Your task to perform on an android device: What's the weather going to be tomorrow? Image 0: 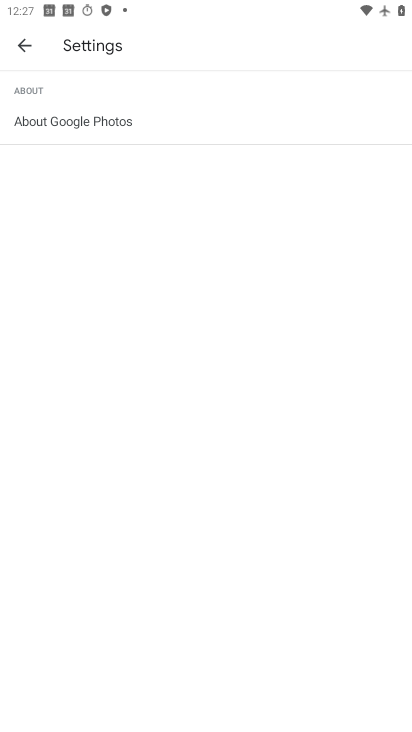
Step 0: press home button
Your task to perform on an android device: What's the weather going to be tomorrow? Image 1: 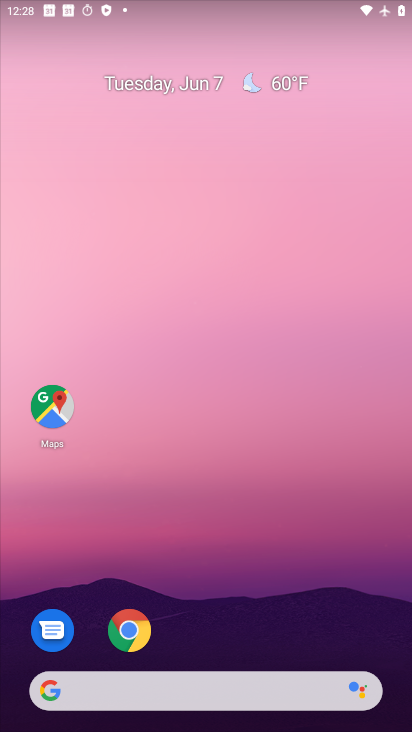
Step 1: drag from (370, 601) to (217, 51)
Your task to perform on an android device: What's the weather going to be tomorrow? Image 2: 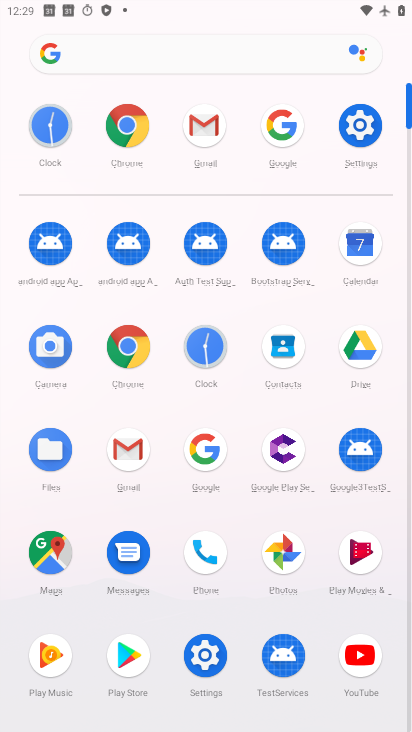
Step 2: click (210, 465)
Your task to perform on an android device: What's the weather going to be tomorrow? Image 3: 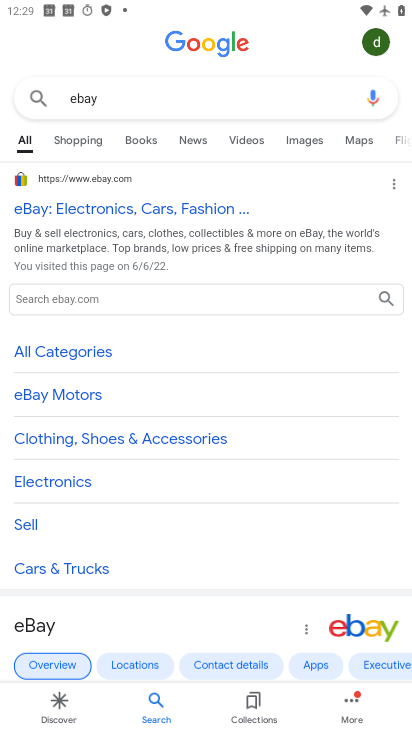
Step 3: press back button
Your task to perform on an android device: What's the weather going to be tomorrow? Image 4: 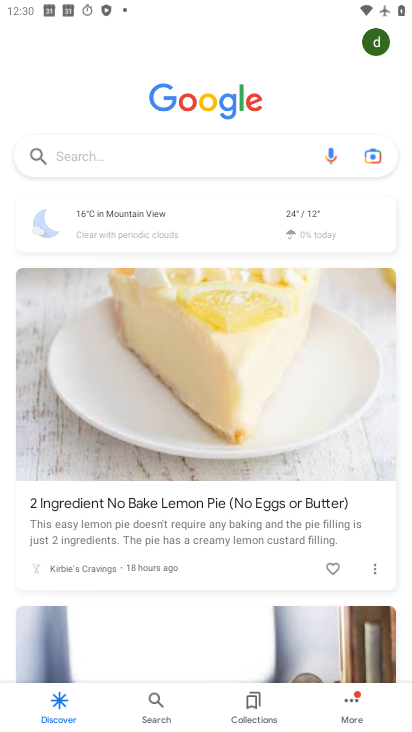
Step 4: click (156, 146)
Your task to perform on an android device: What's the weather going to be tomorrow? Image 5: 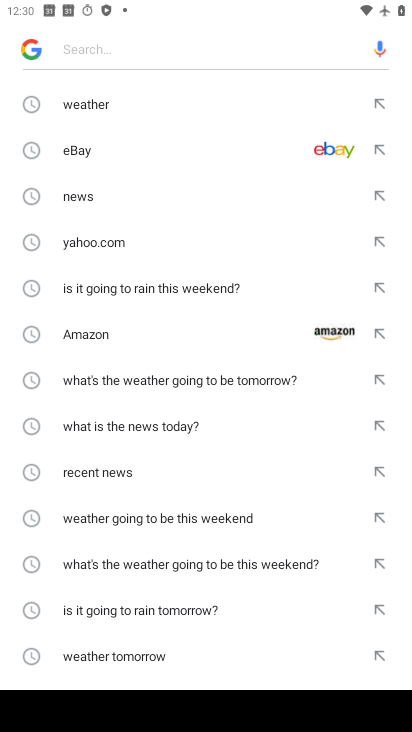
Step 5: click (226, 384)
Your task to perform on an android device: What's the weather going to be tomorrow? Image 6: 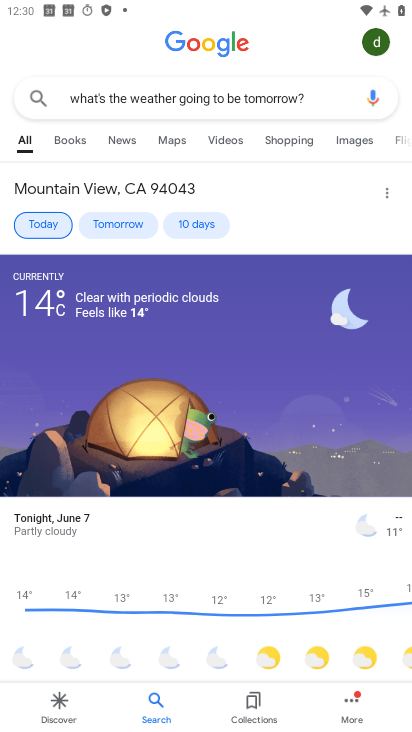
Step 6: task complete